Your task to perform on an android device: Search for seafood restaurants on Google Maps Image 0: 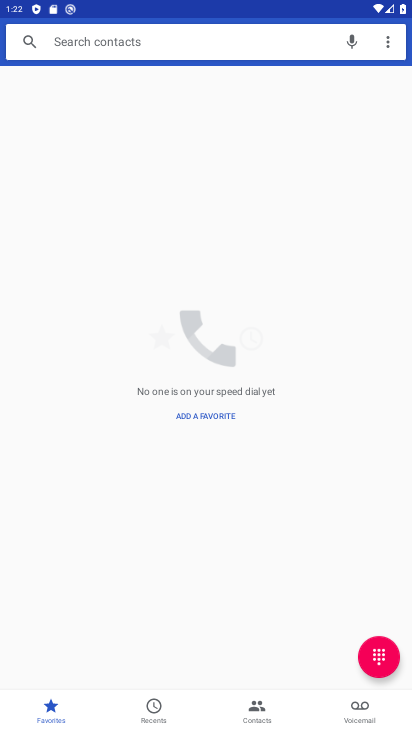
Step 0: press home button
Your task to perform on an android device: Search for seafood restaurants on Google Maps Image 1: 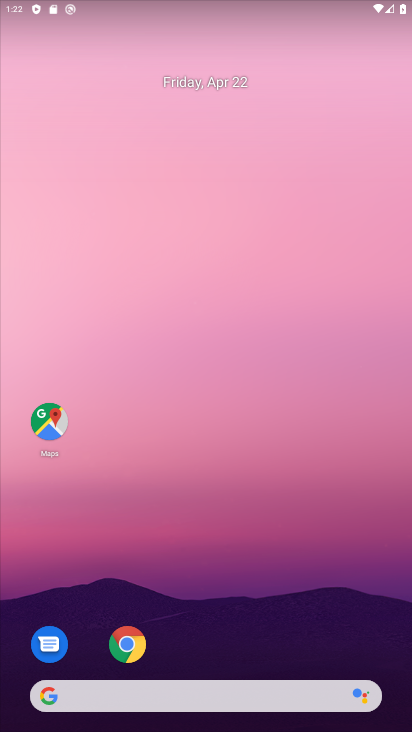
Step 1: click (44, 405)
Your task to perform on an android device: Search for seafood restaurants on Google Maps Image 2: 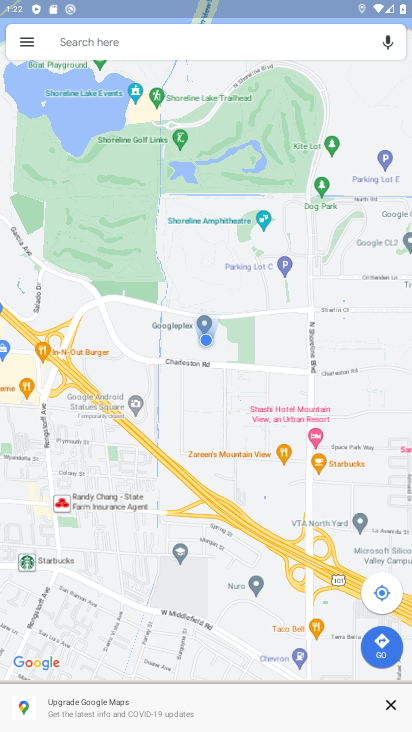
Step 2: click (104, 29)
Your task to perform on an android device: Search for seafood restaurants on Google Maps Image 3: 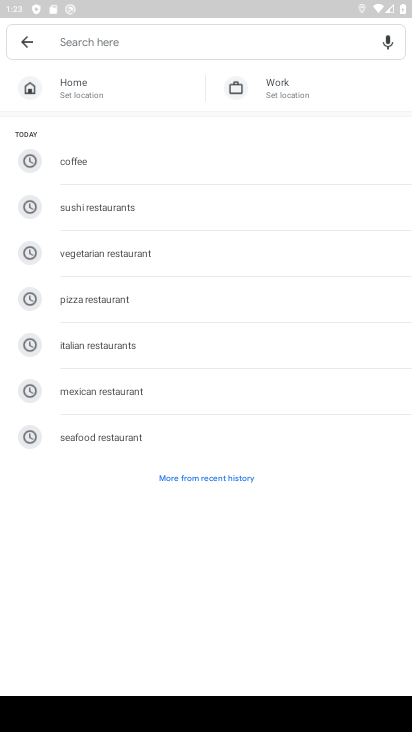
Step 3: click (141, 440)
Your task to perform on an android device: Search for seafood restaurants on Google Maps Image 4: 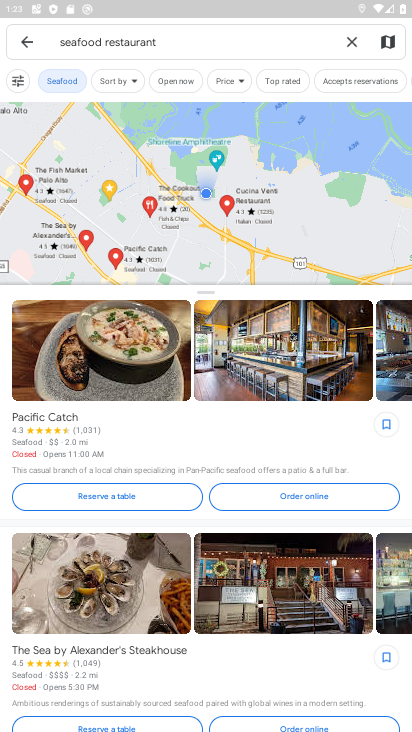
Step 4: task complete